Your task to perform on an android device: Open maps Image 0: 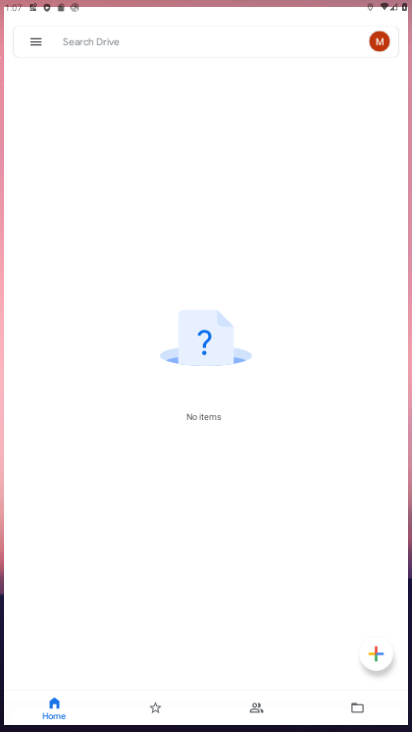
Step 0: drag from (243, 549) to (207, 128)
Your task to perform on an android device: Open maps Image 1: 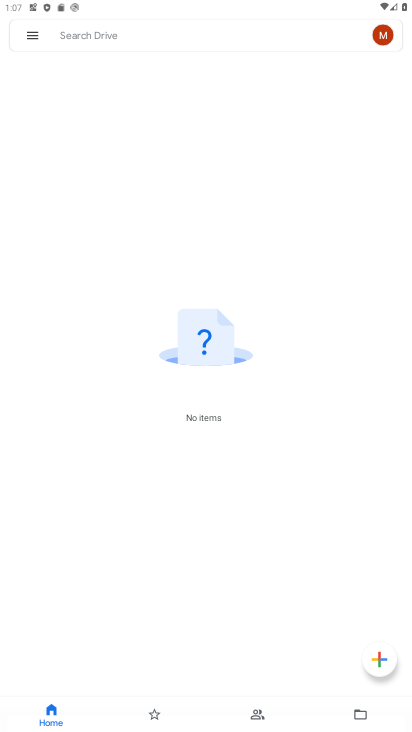
Step 1: press home button
Your task to perform on an android device: Open maps Image 2: 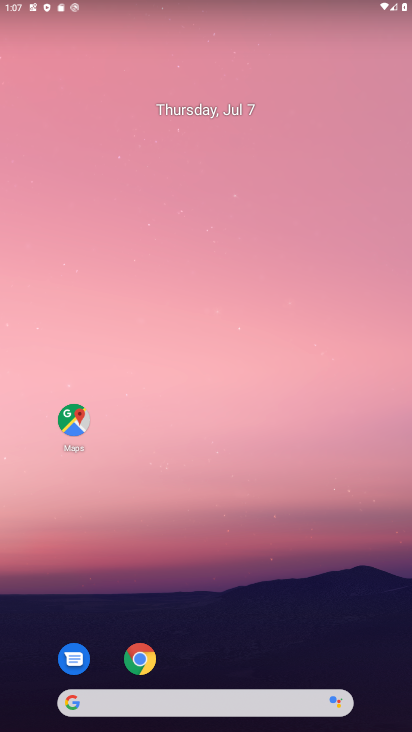
Step 2: click (63, 417)
Your task to perform on an android device: Open maps Image 3: 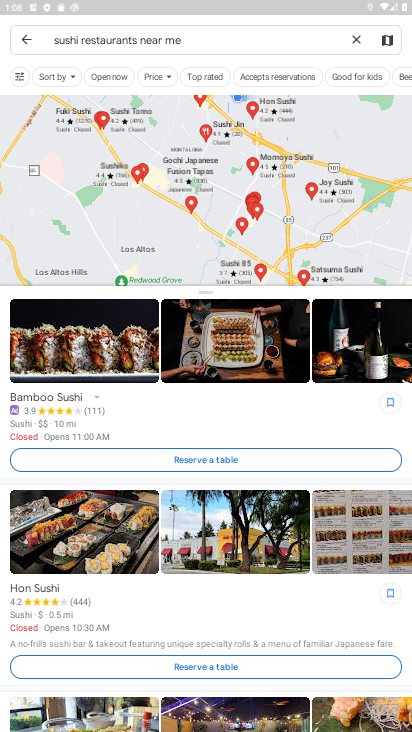
Step 3: task complete